Your task to perform on an android device: turn off data saver in the chrome app Image 0: 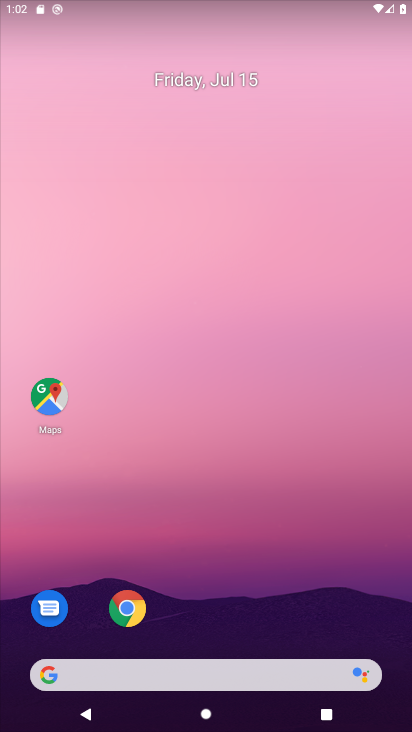
Step 0: click (108, 599)
Your task to perform on an android device: turn off data saver in the chrome app Image 1: 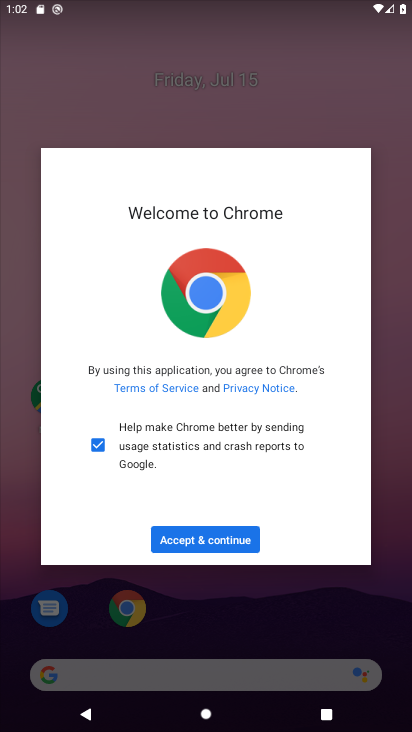
Step 1: click (196, 537)
Your task to perform on an android device: turn off data saver in the chrome app Image 2: 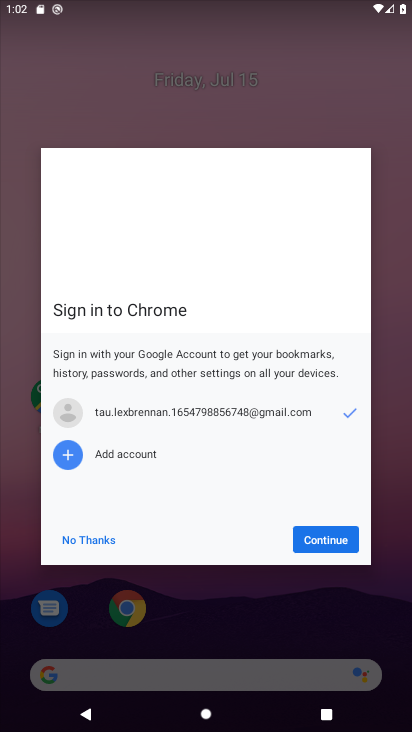
Step 2: click (342, 544)
Your task to perform on an android device: turn off data saver in the chrome app Image 3: 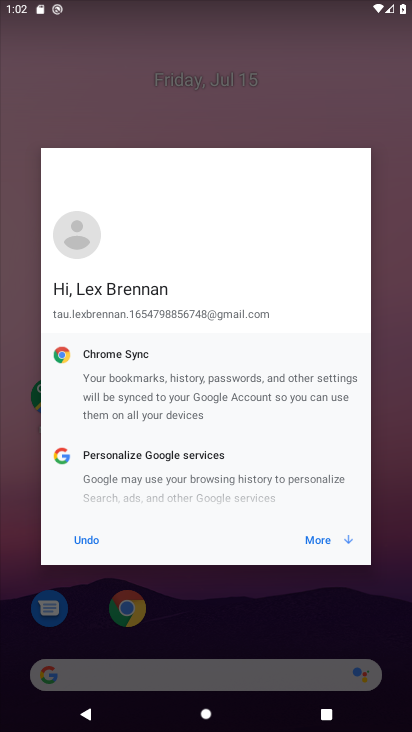
Step 3: click (336, 544)
Your task to perform on an android device: turn off data saver in the chrome app Image 4: 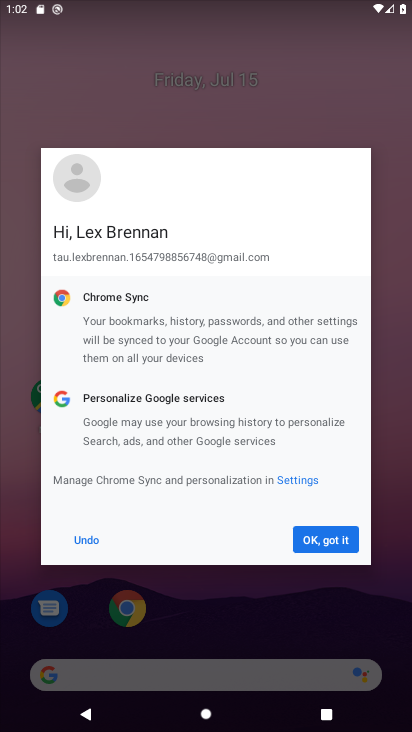
Step 4: click (336, 544)
Your task to perform on an android device: turn off data saver in the chrome app Image 5: 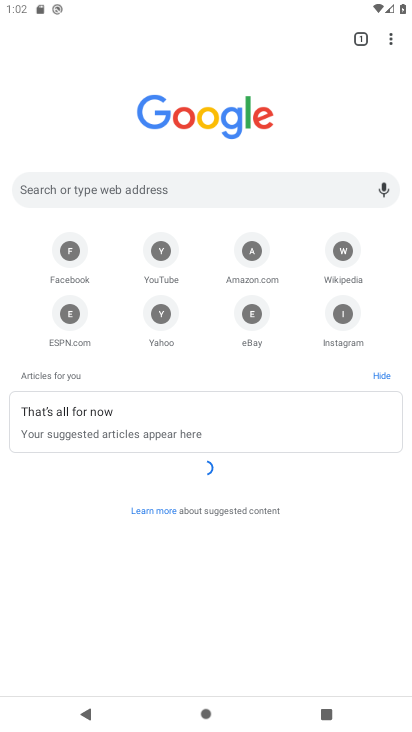
Step 5: drag from (389, 26) to (303, 314)
Your task to perform on an android device: turn off data saver in the chrome app Image 6: 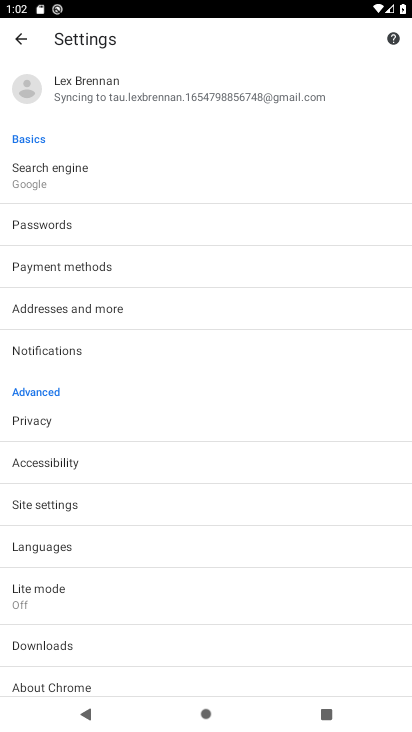
Step 6: click (85, 605)
Your task to perform on an android device: turn off data saver in the chrome app Image 7: 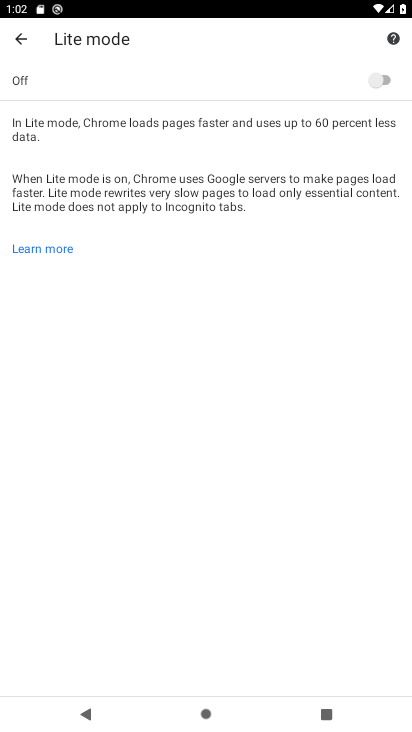
Step 7: task complete